Your task to perform on an android device: When is my next appointment? Image 0: 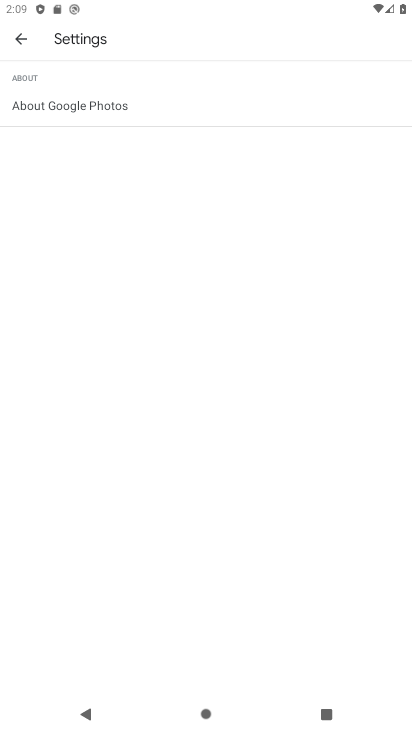
Step 0: press home button
Your task to perform on an android device: When is my next appointment? Image 1: 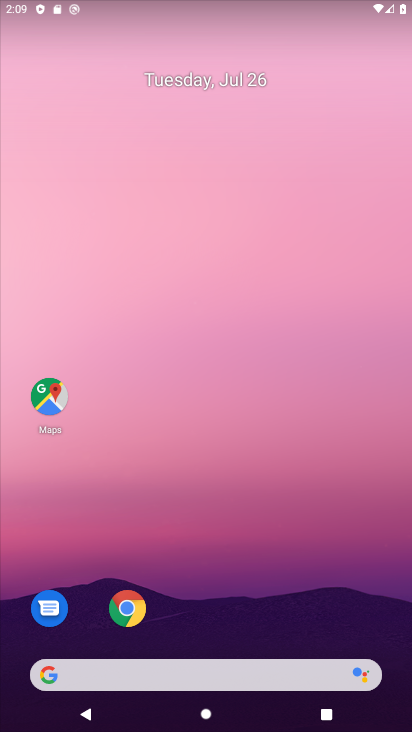
Step 1: drag from (264, 624) to (364, 76)
Your task to perform on an android device: When is my next appointment? Image 2: 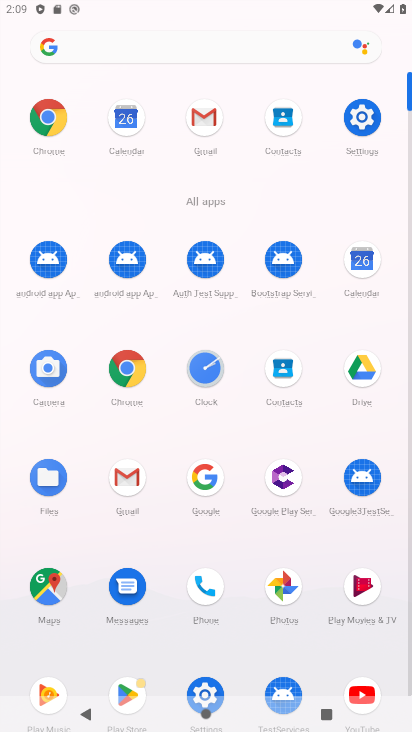
Step 2: click (353, 259)
Your task to perform on an android device: When is my next appointment? Image 3: 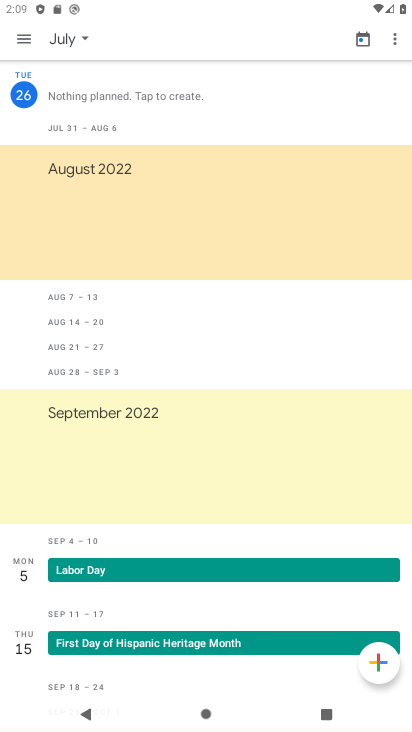
Step 3: task complete